Your task to perform on an android device: move an email to a new category in the gmail app Image 0: 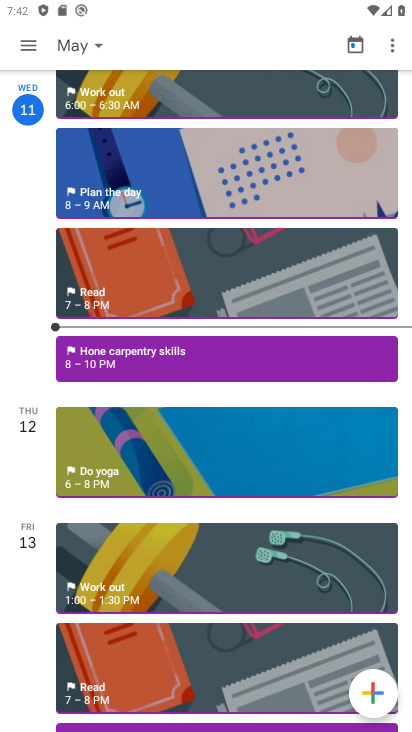
Step 0: press back button
Your task to perform on an android device: move an email to a new category in the gmail app Image 1: 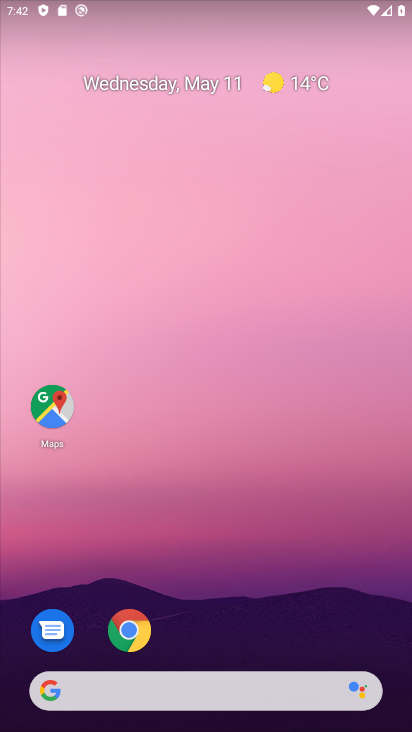
Step 1: drag from (262, 521) to (223, 240)
Your task to perform on an android device: move an email to a new category in the gmail app Image 2: 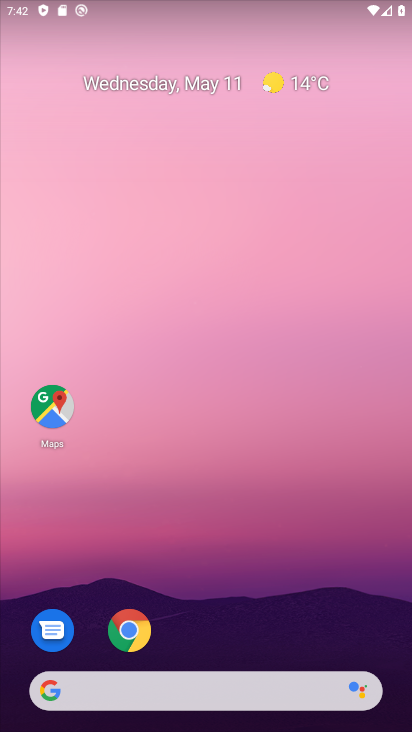
Step 2: drag from (245, 594) to (144, 112)
Your task to perform on an android device: move an email to a new category in the gmail app Image 3: 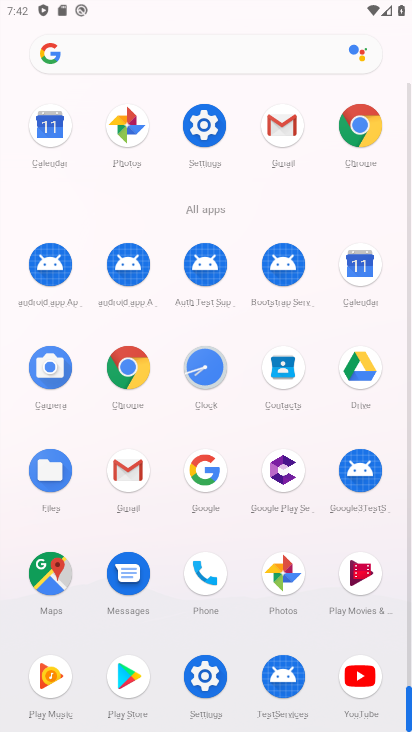
Step 3: click (282, 122)
Your task to perform on an android device: move an email to a new category in the gmail app Image 4: 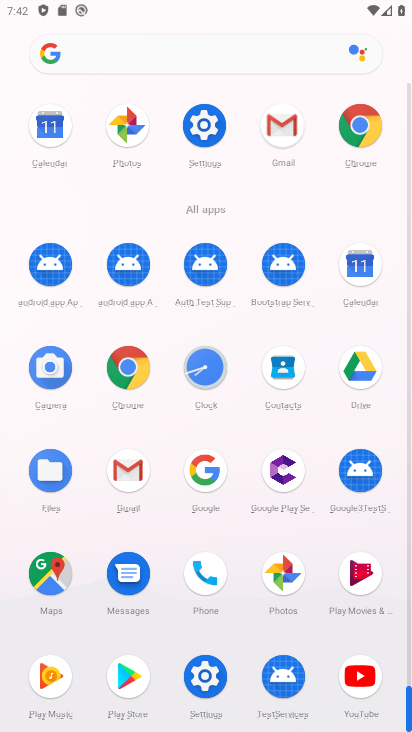
Step 4: click (276, 117)
Your task to perform on an android device: move an email to a new category in the gmail app Image 5: 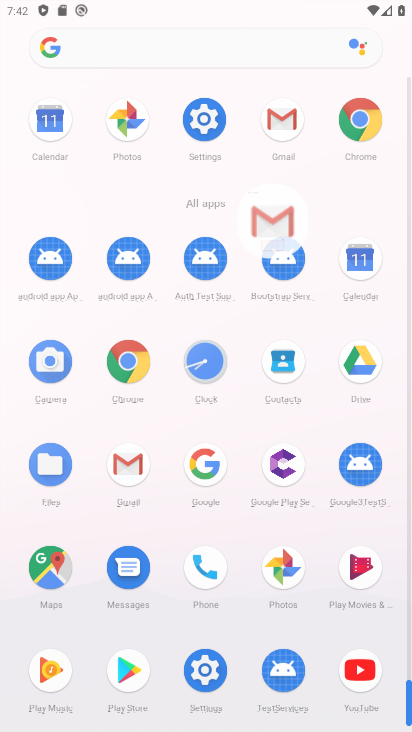
Step 5: click (276, 117)
Your task to perform on an android device: move an email to a new category in the gmail app Image 6: 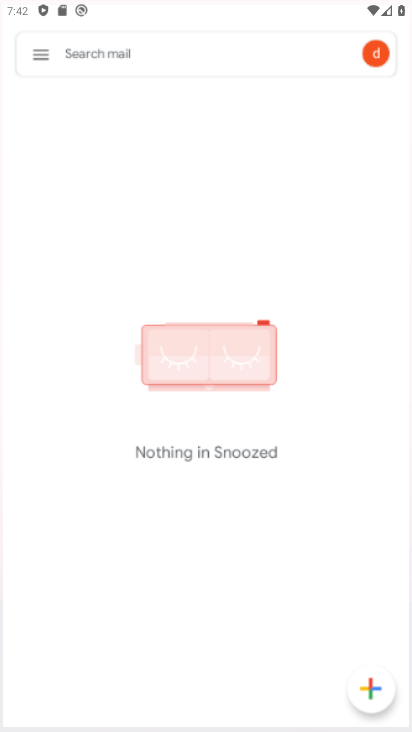
Step 6: click (276, 117)
Your task to perform on an android device: move an email to a new category in the gmail app Image 7: 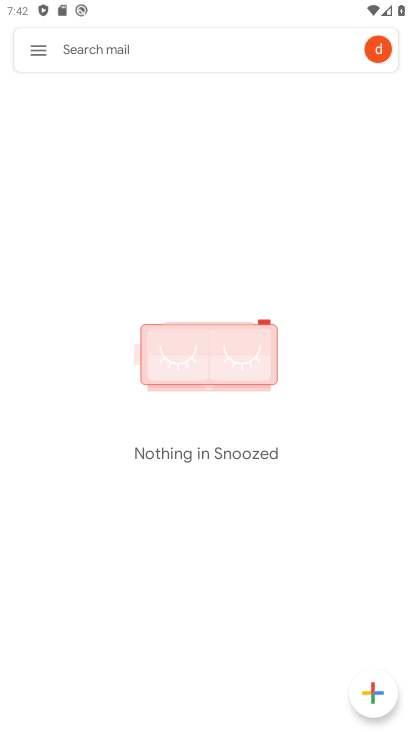
Step 7: click (36, 44)
Your task to perform on an android device: move an email to a new category in the gmail app Image 8: 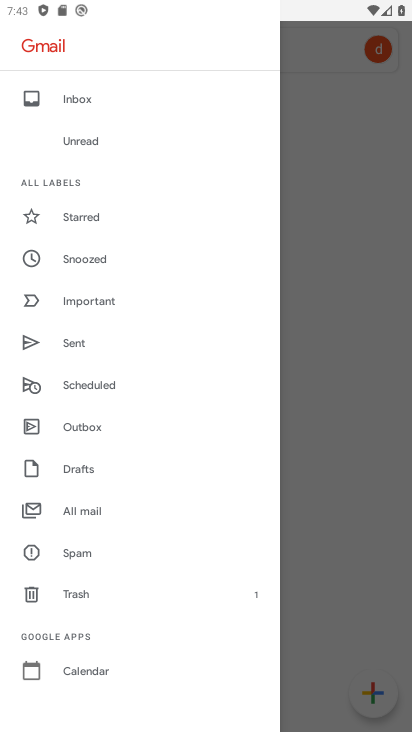
Step 8: click (82, 496)
Your task to perform on an android device: move an email to a new category in the gmail app Image 9: 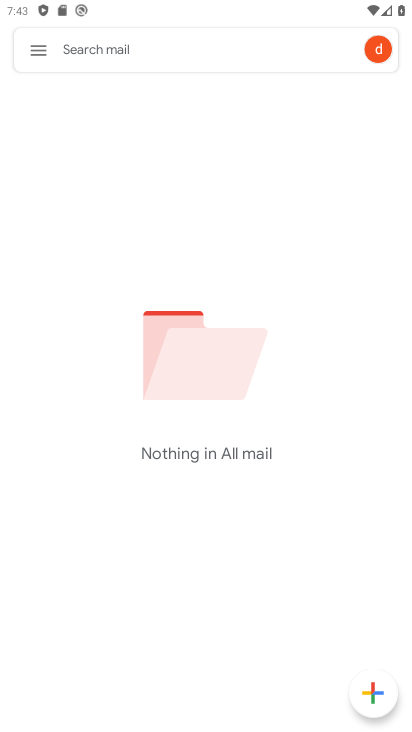
Step 9: task complete